Your task to perform on an android device: See recent photos Image 0: 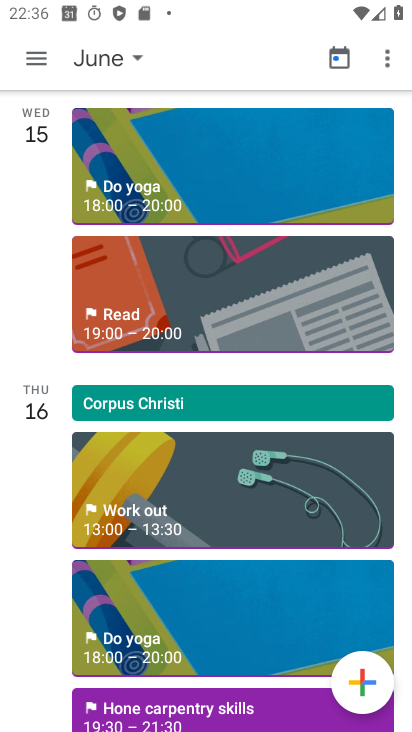
Step 0: press home button
Your task to perform on an android device: See recent photos Image 1: 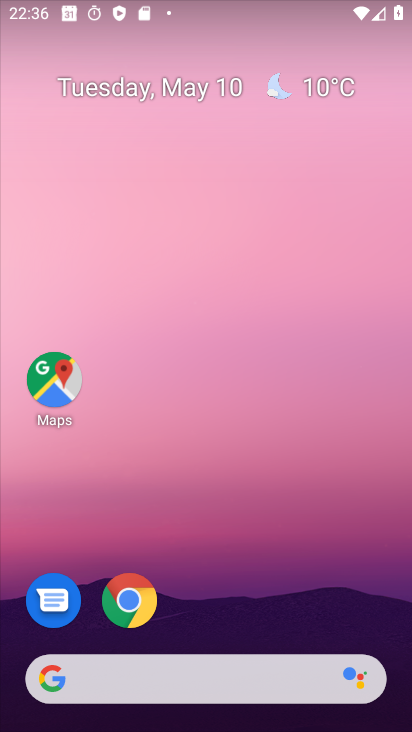
Step 1: drag from (282, 584) to (326, 77)
Your task to perform on an android device: See recent photos Image 2: 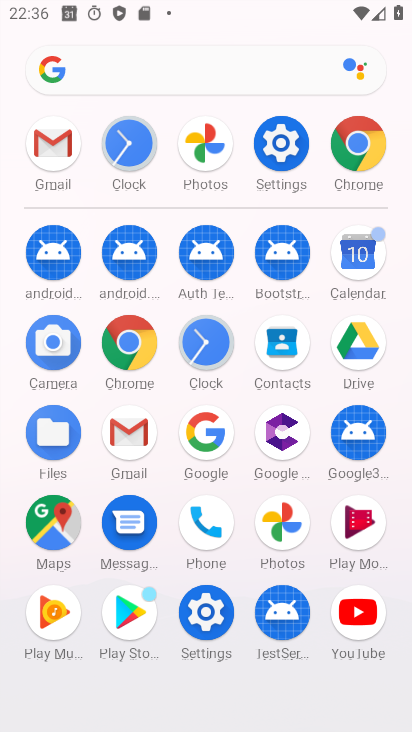
Step 2: click (283, 522)
Your task to perform on an android device: See recent photos Image 3: 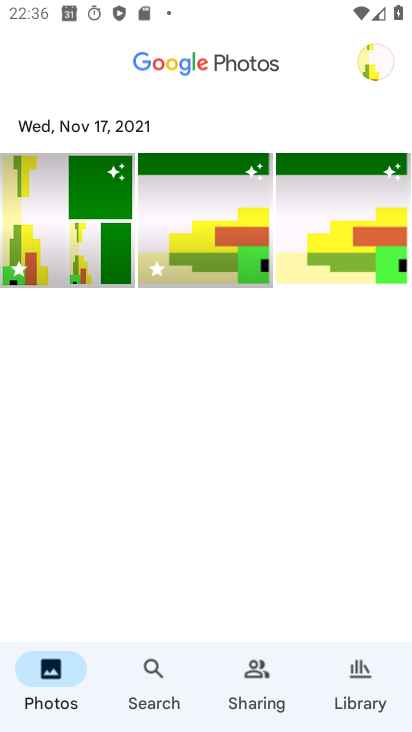
Step 3: click (50, 211)
Your task to perform on an android device: See recent photos Image 4: 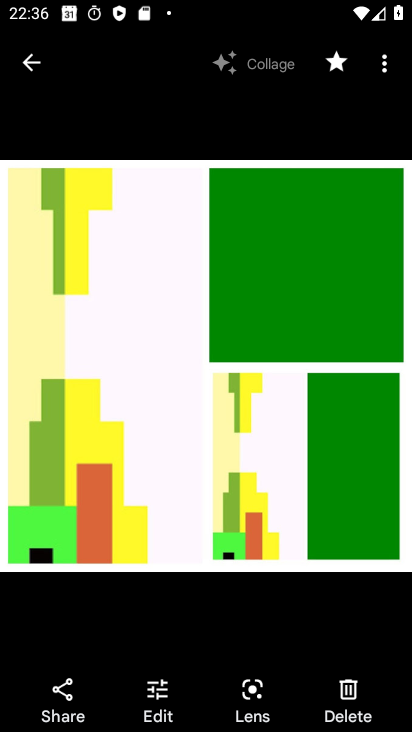
Step 4: task complete